Your task to perform on an android device: open app "Grab" Image 0: 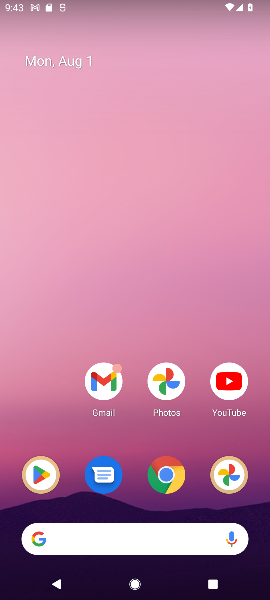
Step 0: drag from (163, 500) to (101, 40)
Your task to perform on an android device: open app "Grab" Image 1: 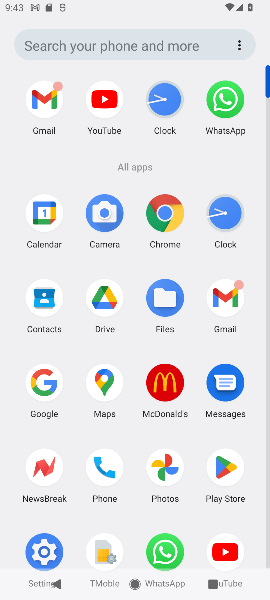
Step 1: click (228, 464)
Your task to perform on an android device: open app "Grab" Image 2: 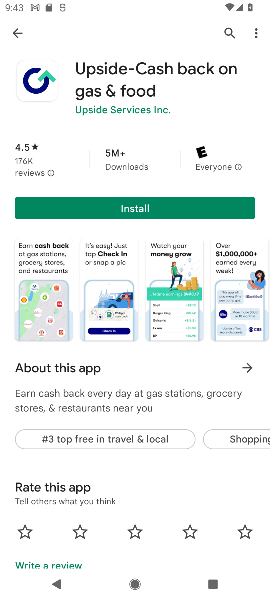
Step 2: click (17, 29)
Your task to perform on an android device: open app "Grab" Image 3: 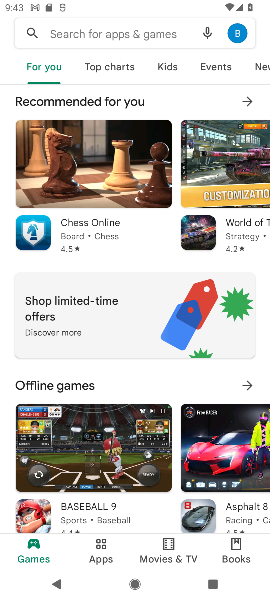
Step 3: click (66, 34)
Your task to perform on an android device: open app "Grab" Image 4: 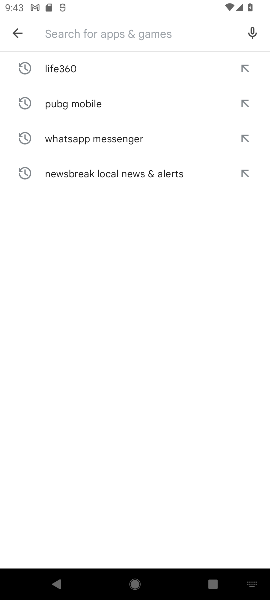
Step 4: type "Grab"
Your task to perform on an android device: open app "Grab" Image 5: 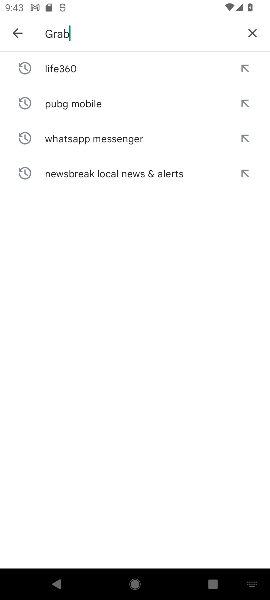
Step 5: type ""
Your task to perform on an android device: open app "Grab" Image 6: 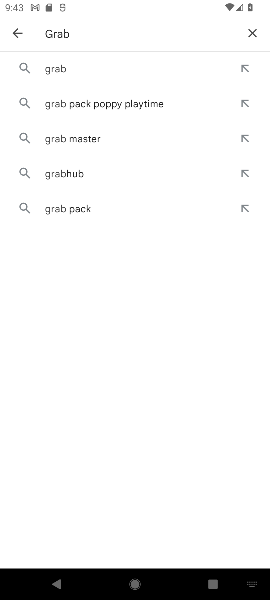
Step 6: click (53, 70)
Your task to perform on an android device: open app "Grab" Image 7: 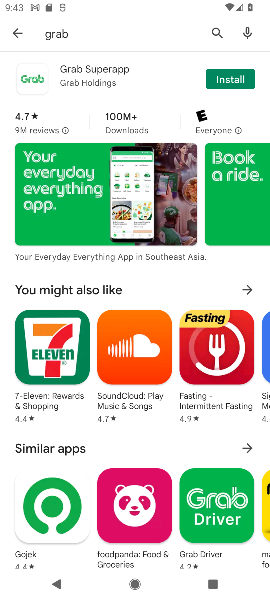
Step 7: task complete